Your task to perform on an android device: Go to ESPN.com Image 0: 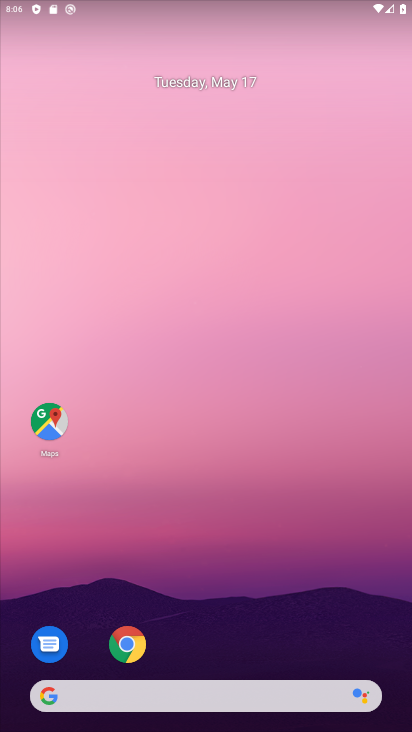
Step 0: click (128, 647)
Your task to perform on an android device: Go to ESPN.com Image 1: 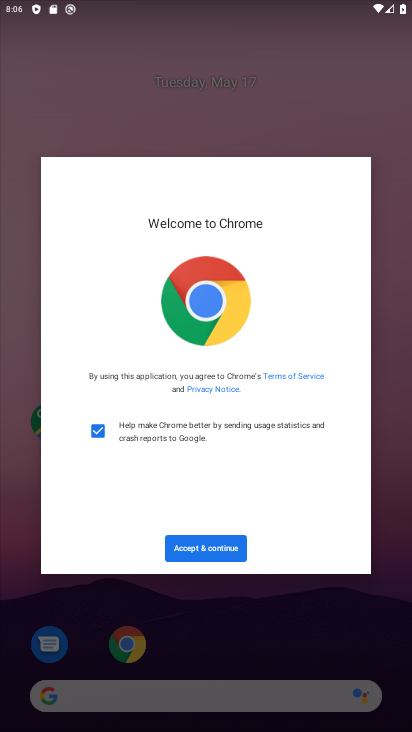
Step 1: click (211, 545)
Your task to perform on an android device: Go to ESPN.com Image 2: 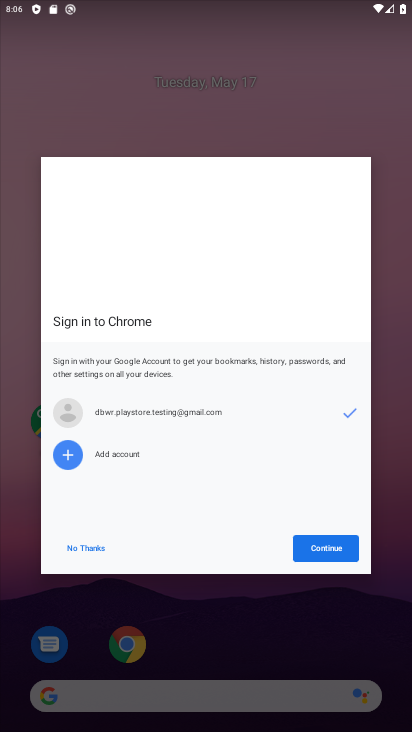
Step 2: click (316, 547)
Your task to perform on an android device: Go to ESPN.com Image 3: 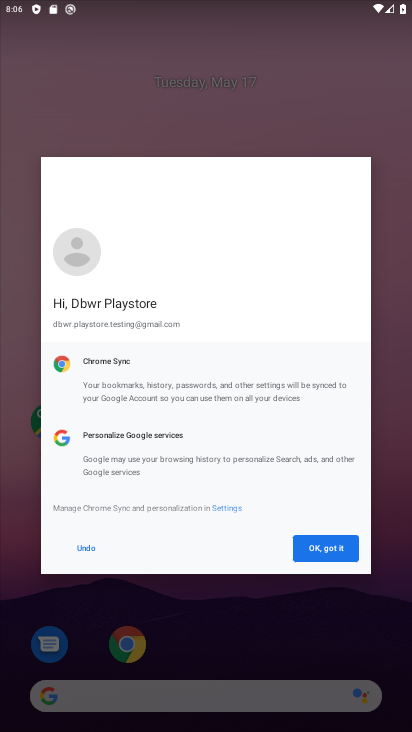
Step 3: click (328, 539)
Your task to perform on an android device: Go to ESPN.com Image 4: 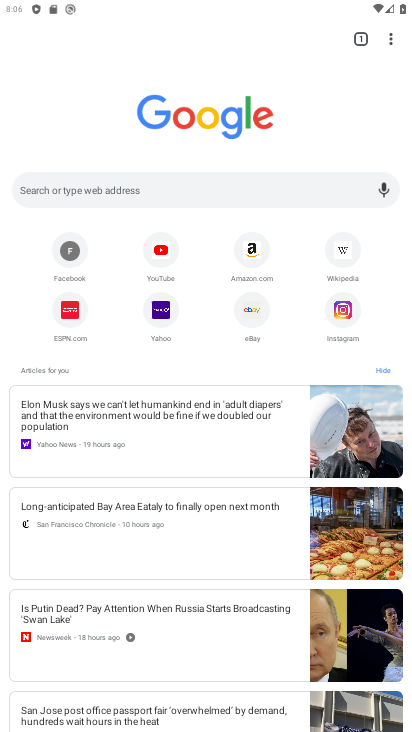
Step 4: click (152, 192)
Your task to perform on an android device: Go to ESPN.com Image 5: 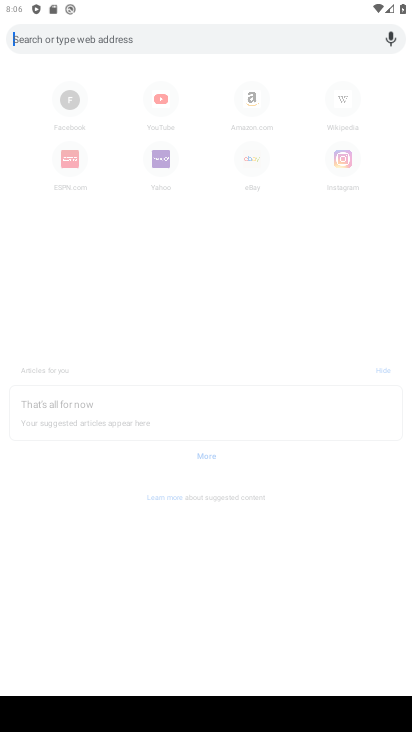
Step 5: type "ESPN.com"
Your task to perform on an android device: Go to ESPN.com Image 6: 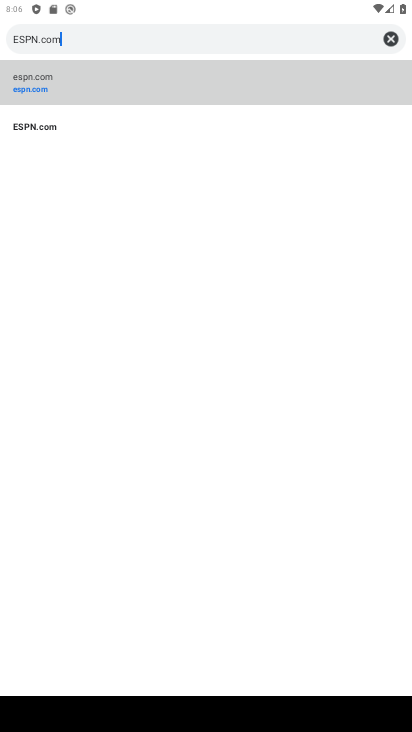
Step 6: click (24, 84)
Your task to perform on an android device: Go to ESPN.com Image 7: 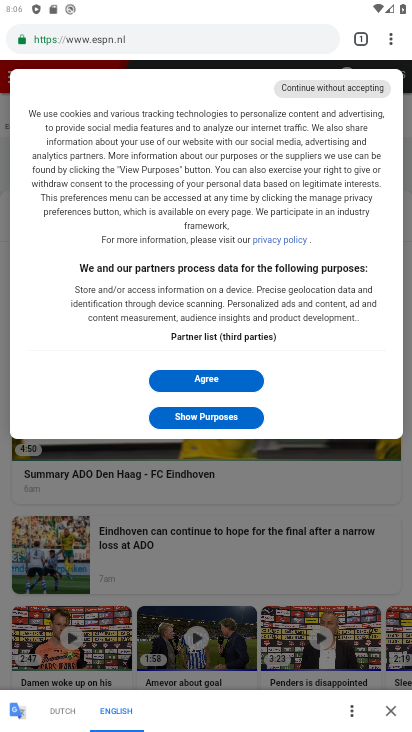
Step 7: task complete